Your task to perform on an android device: turn off sleep mode Image 0: 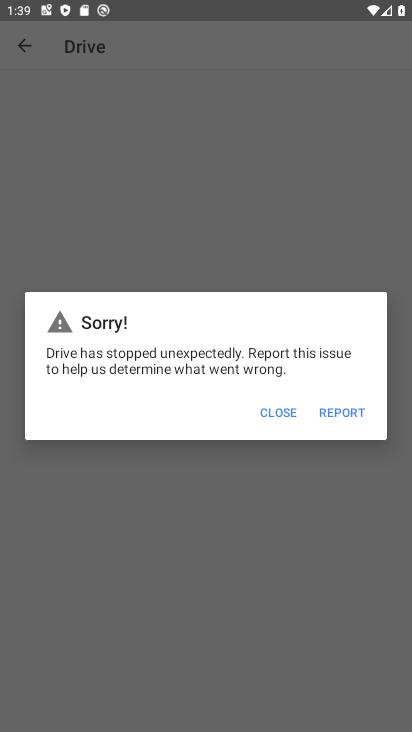
Step 0: press back button
Your task to perform on an android device: turn off sleep mode Image 1: 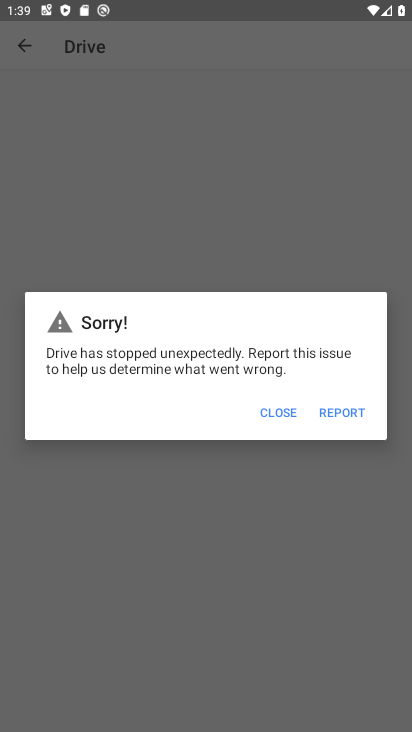
Step 1: press home button
Your task to perform on an android device: turn off sleep mode Image 2: 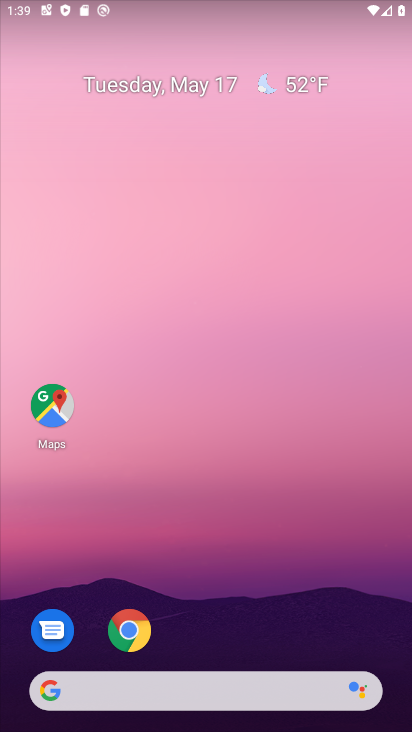
Step 2: drag from (227, 555) to (290, 95)
Your task to perform on an android device: turn off sleep mode Image 3: 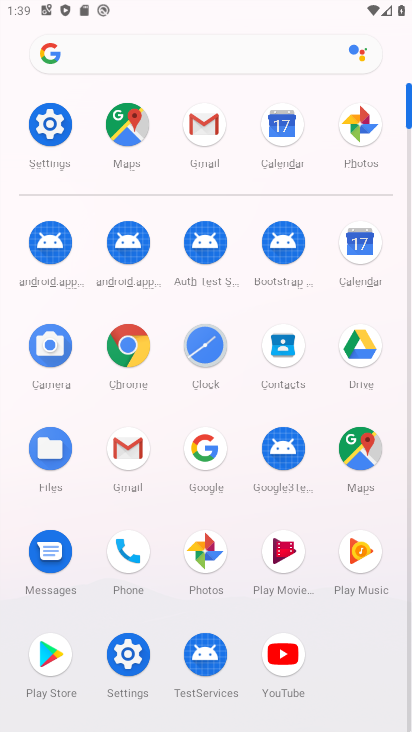
Step 3: click (47, 122)
Your task to perform on an android device: turn off sleep mode Image 4: 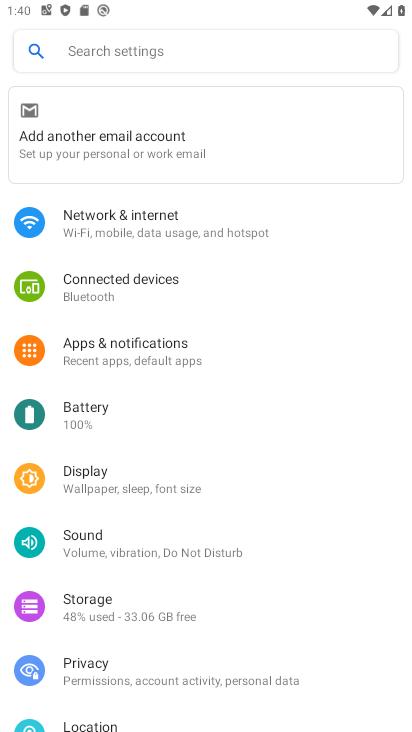
Step 4: click (116, 39)
Your task to perform on an android device: turn off sleep mode Image 5: 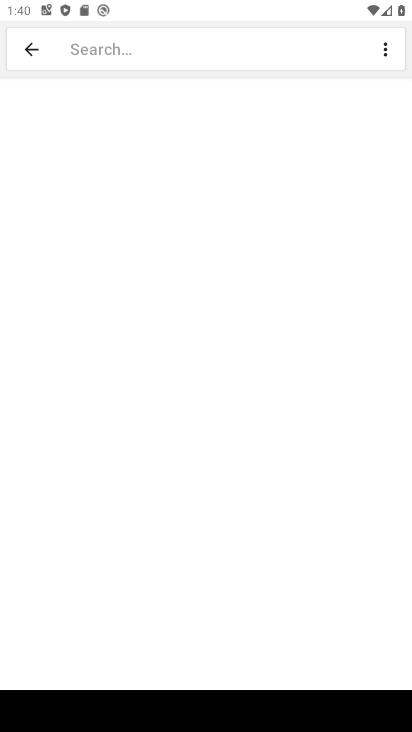
Step 5: type "sleep mode"
Your task to perform on an android device: turn off sleep mode Image 6: 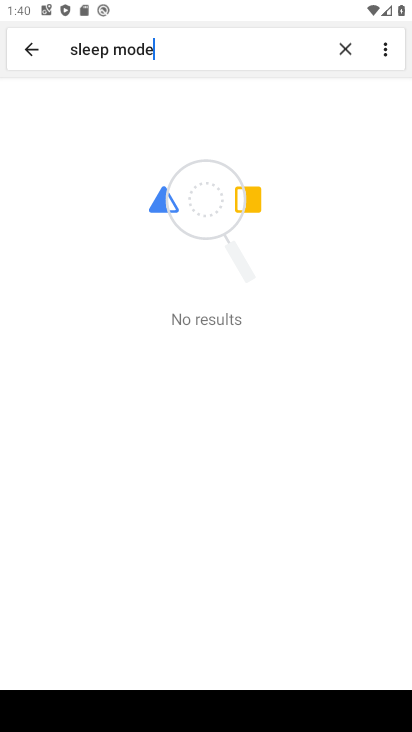
Step 6: task complete